Your task to perform on an android device: Open network settings Image 0: 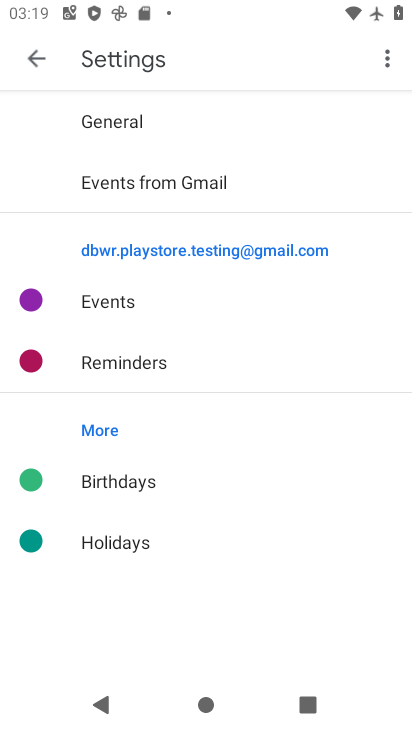
Step 0: drag from (240, 380) to (339, 158)
Your task to perform on an android device: Open network settings Image 1: 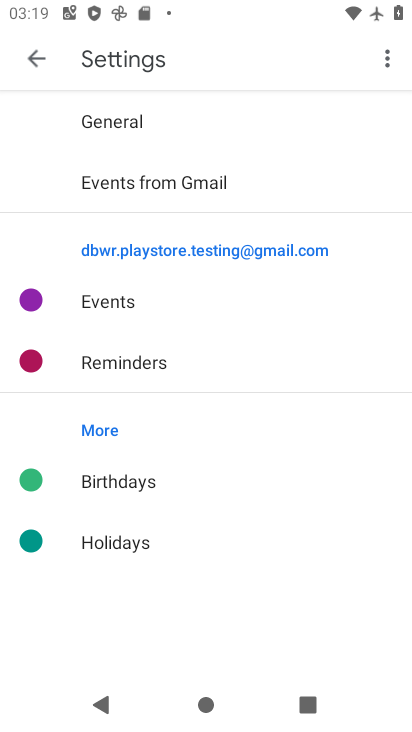
Step 1: press home button
Your task to perform on an android device: Open network settings Image 2: 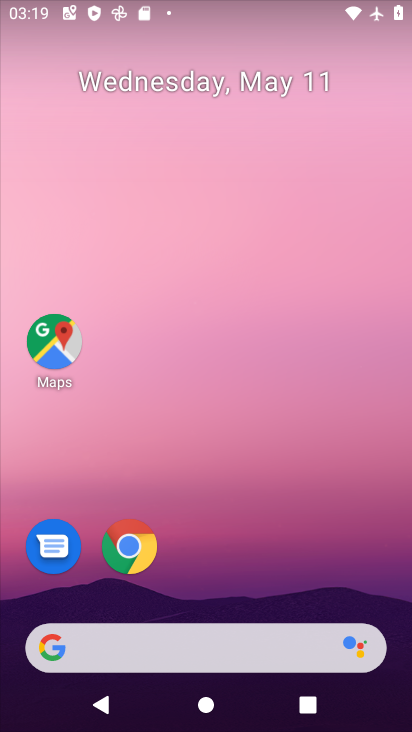
Step 2: drag from (182, 581) to (168, 167)
Your task to perform on an android device: Open network settings Image 3: 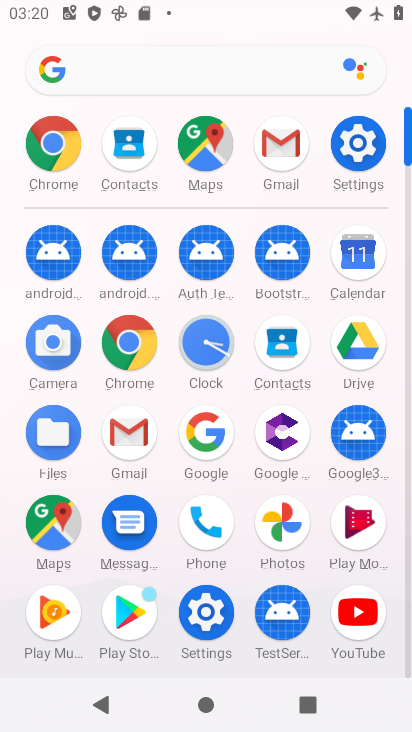
Step 3: drag from (236, 649) to (240, 354)
Your task to perform on an android device: Open network settings Image 4: 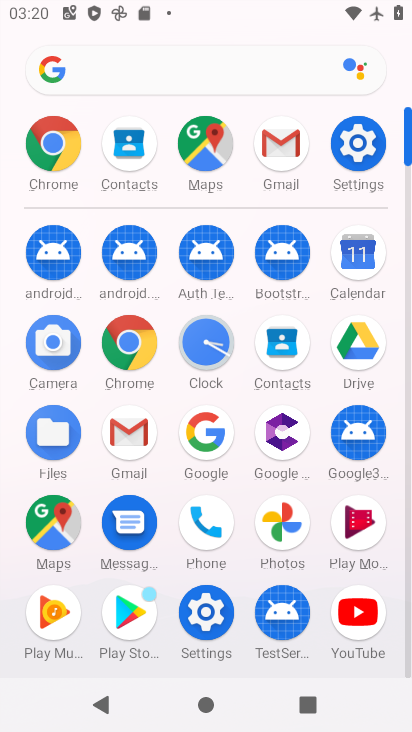
Step 4: click (201, 600)
Your task to perform on an android device: Open network settings Image 5: 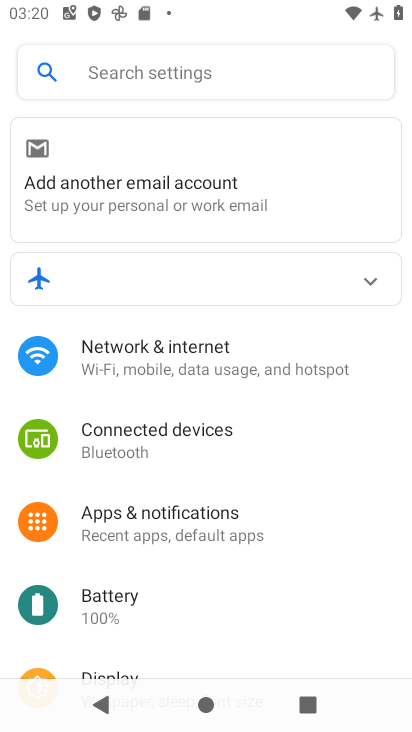
Step 5: click (169, 344)
Your task to perform on an android device: Open network settings Image 6: 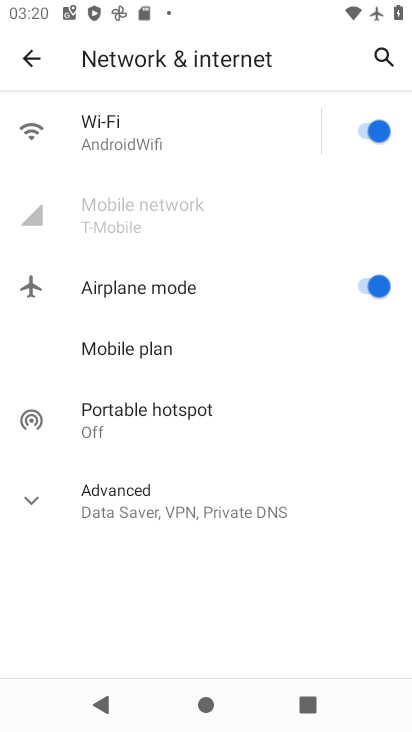
Step 6: task complete